Your task to perform on an android device: check battery use Image 0: 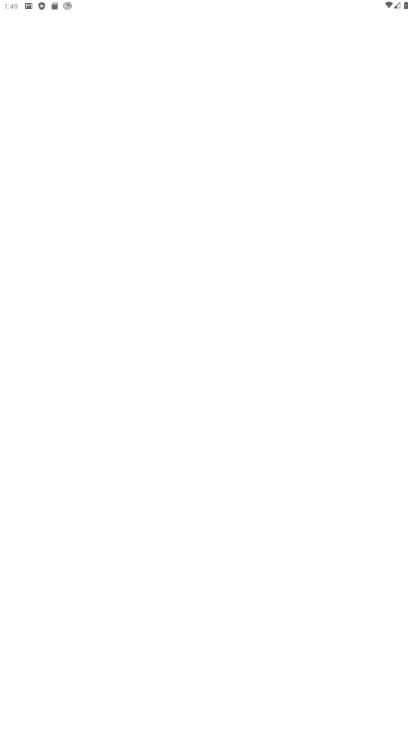
Step 0: press home button
Your task to perform on an android device: check battery use Image 1: 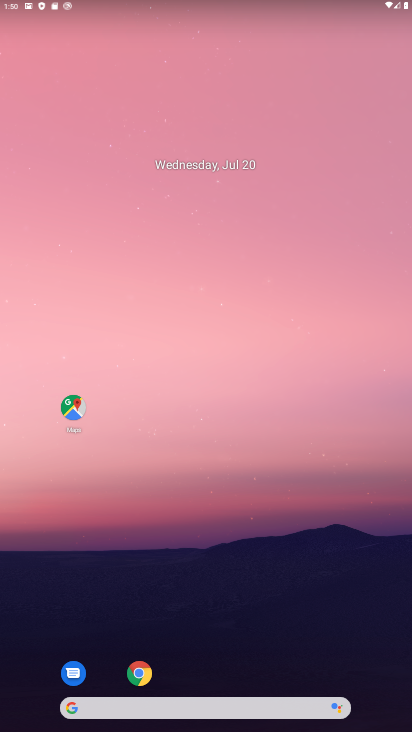
Step 1: drag from (211, 667) to (202, 162)
Your task to perform on an android device: check battery use Image 2: 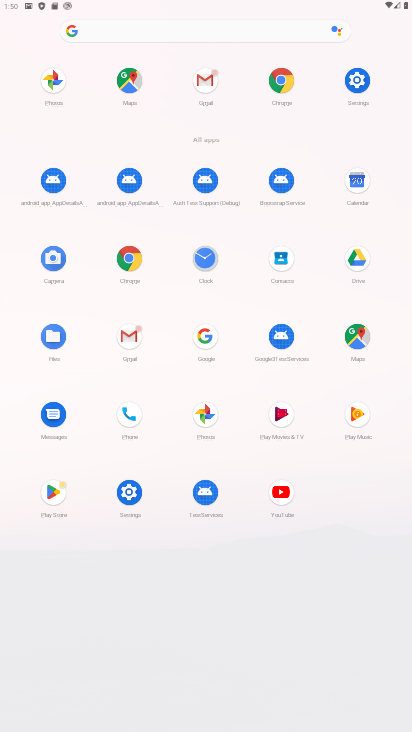
Step 2: click (355, 78)
Your task to perform on an android device: check battery use Image 3: 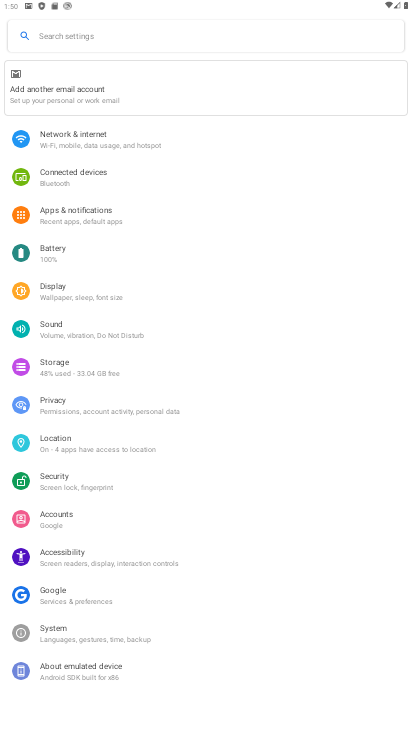
Step 3: click (67, 260)
Your task to perform on an android device: check battery use Image 4: 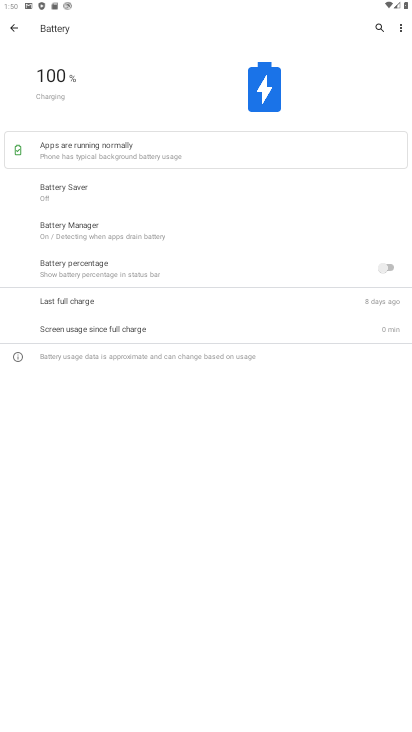
Step 4: click (399, 24)
Your task to perform on an android device: check battery use Image 5: 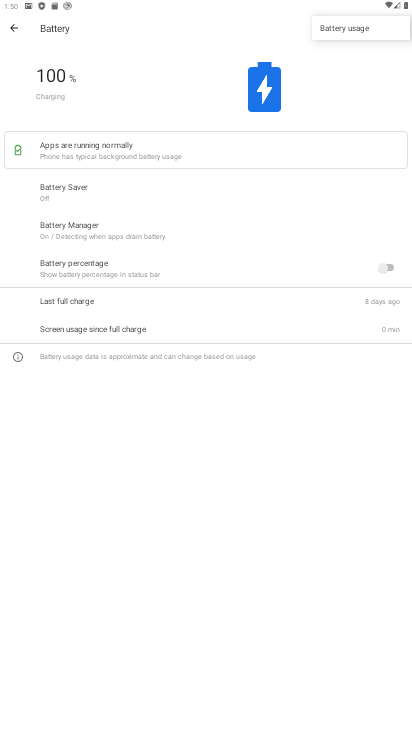
Step 5: click (322, 23)
Your task to perform on an android device: check battery use Image 6: 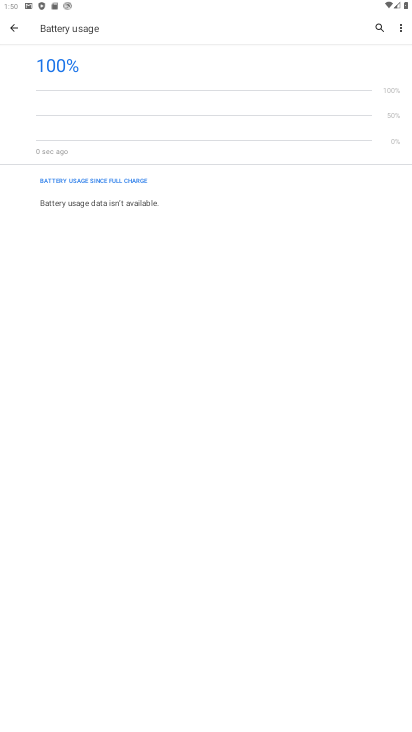
Step 6: task complete